Your task to perform on an android device: find photos in the google photos app Image 0: 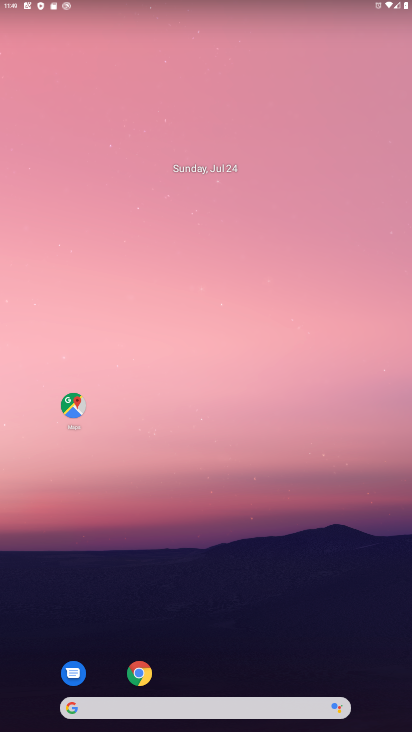
Step 0: drag from (344, 567) to (297, 12)
Your task to perform on an android device: find photos in the google photos app Image 1: 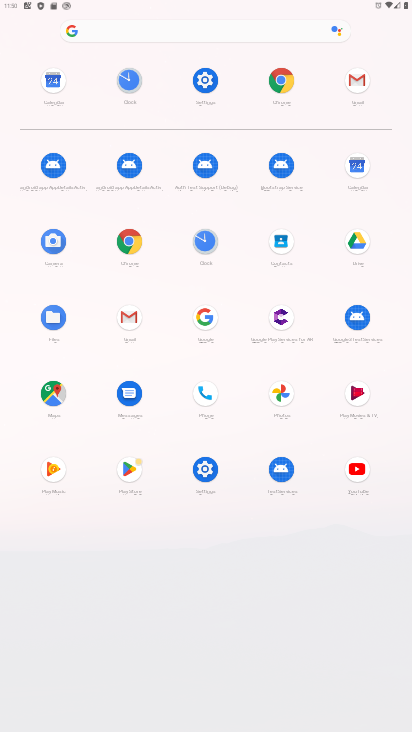
Step 1: click (281, 391)
Your task to perform on an android device: find photos in the google photos app Image 2: 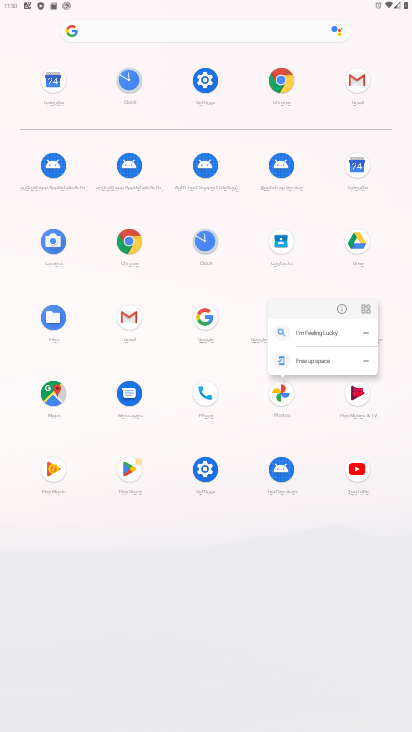
Step 2: click (283, 394)
Your task to perform on an android device: find photos in the google photos app Image 3: 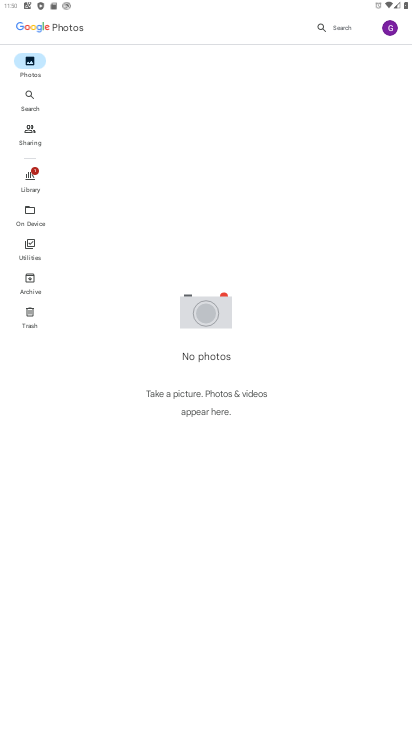
Step 3: task complete